Your task to perform on an android device: check data usage Image 0: 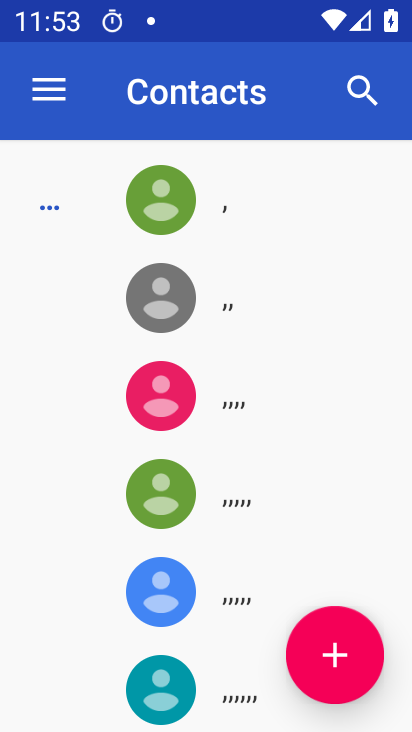
Step 0: press home button
Your task to perform on an android device: check data usage Image 1: 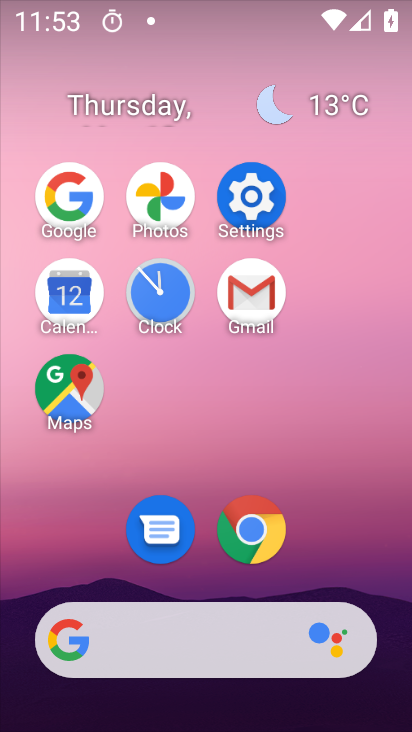
Step 1: click (246, 239)
Your task to perform on an android device: check data usage Image 2: 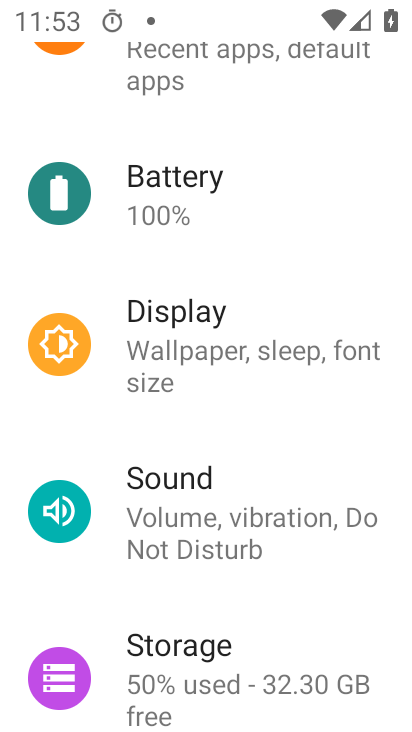
Step 2: drag from (256, 166) to (284, 587)
Your task to perform on an android device: check data usage Image 3: 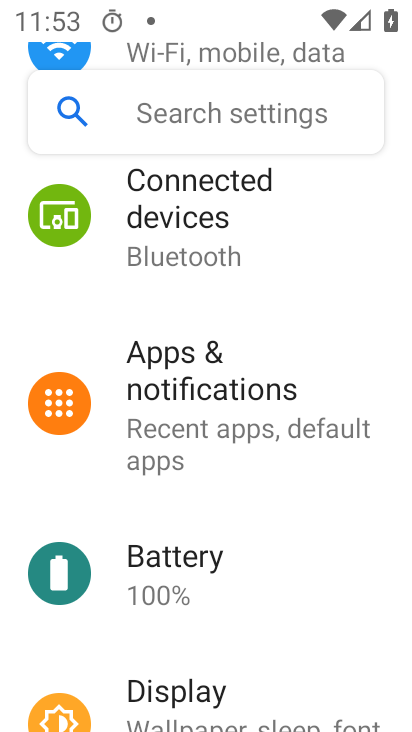
Step 3: drag from (297, 215) to (310, 605)
Your task to perform on an android device: check data usage Image 4: 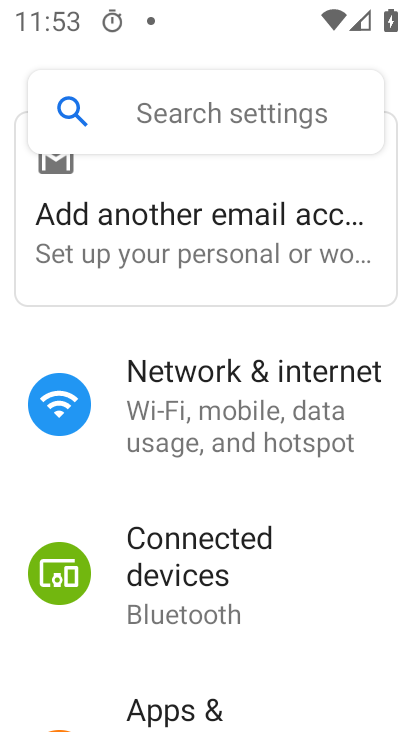
Step 4: click (263, 430)
Your task to perform on an android device: check data usage Image 5: 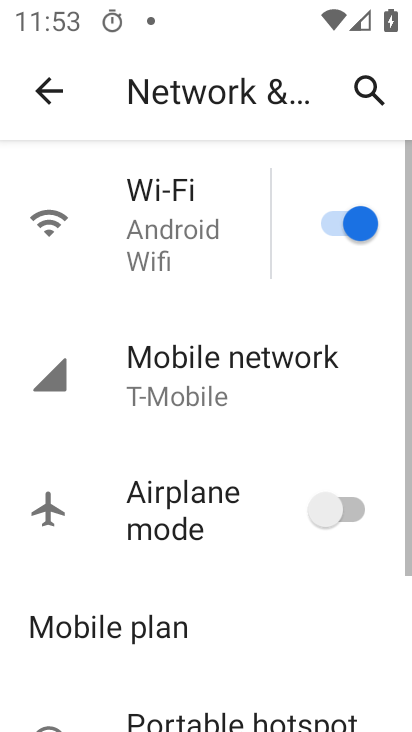
Step 5: click (246, 402)
Your task to perform on an android device: check data usage Image 6: 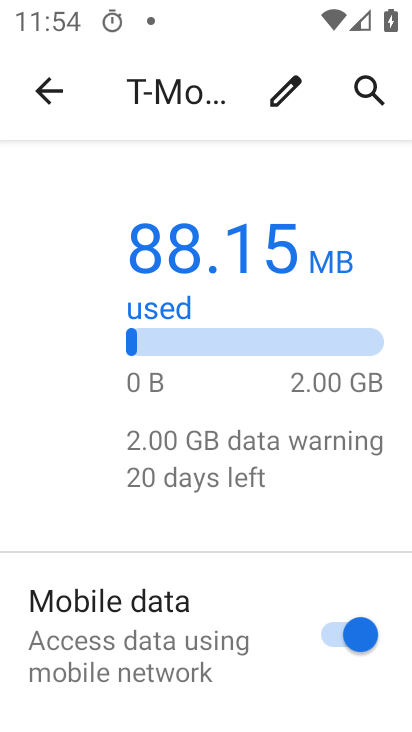
Step 6: task complete